Your task to perform on an android device: visit the assistant section in the google photos Image 0: 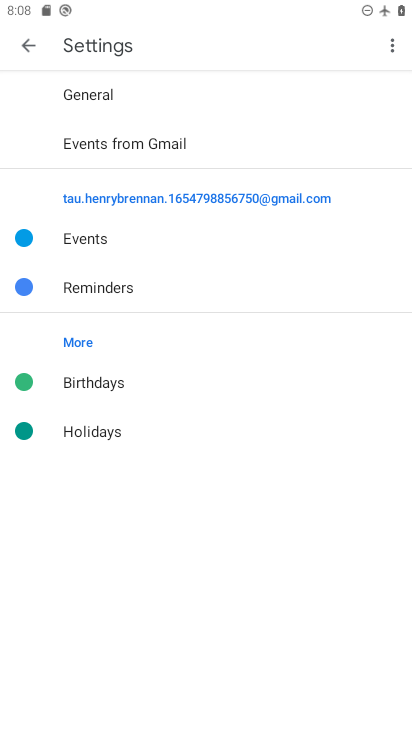
Step 0: press home button
Your task to perform on an android device: visit the assistant section in the google photos Image 1: 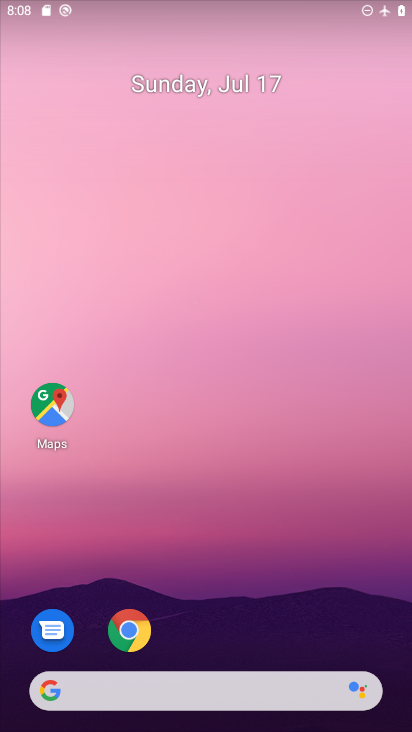
Step 1: drag from (376, 688) to (189, 31)
Your task to perform on an android device: visit the assistant section in the google photos Image 2: 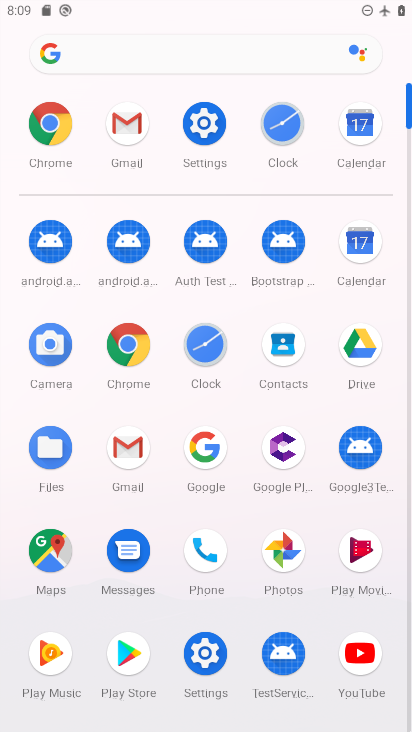
Step 2: click (269, 549)
Your task to perform on an android device: visit the assistant section in the google photos Image 3: 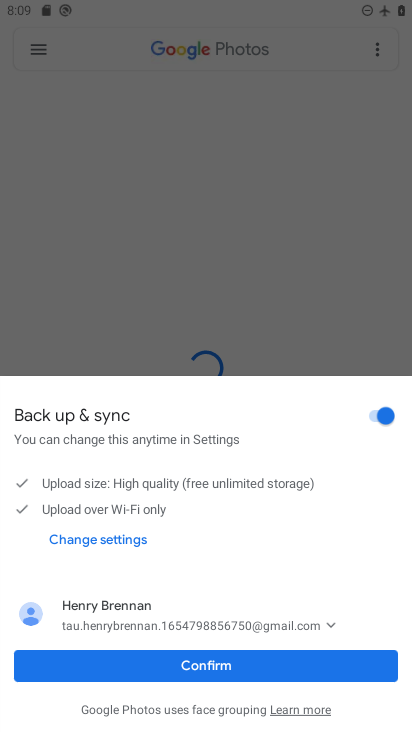
Step 3: click (192, 658)
Your task to perform on an android device: visit the assistant section in the google photos Image 4: 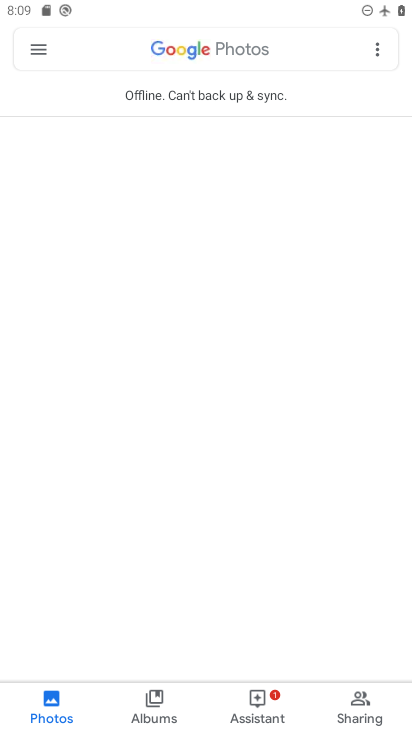
Step 4: click (260, 699)
Your task to perform on an android device: visit the assistant section in the google photos Image 5: 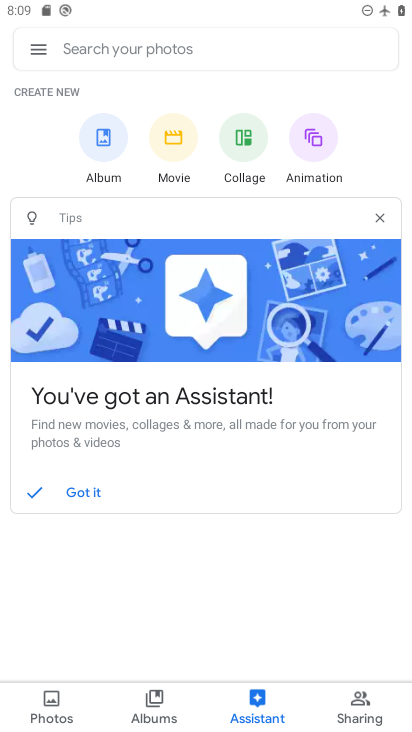
Step 5: task complete